Your task to perform on an android device: Open internet settings Image 0: 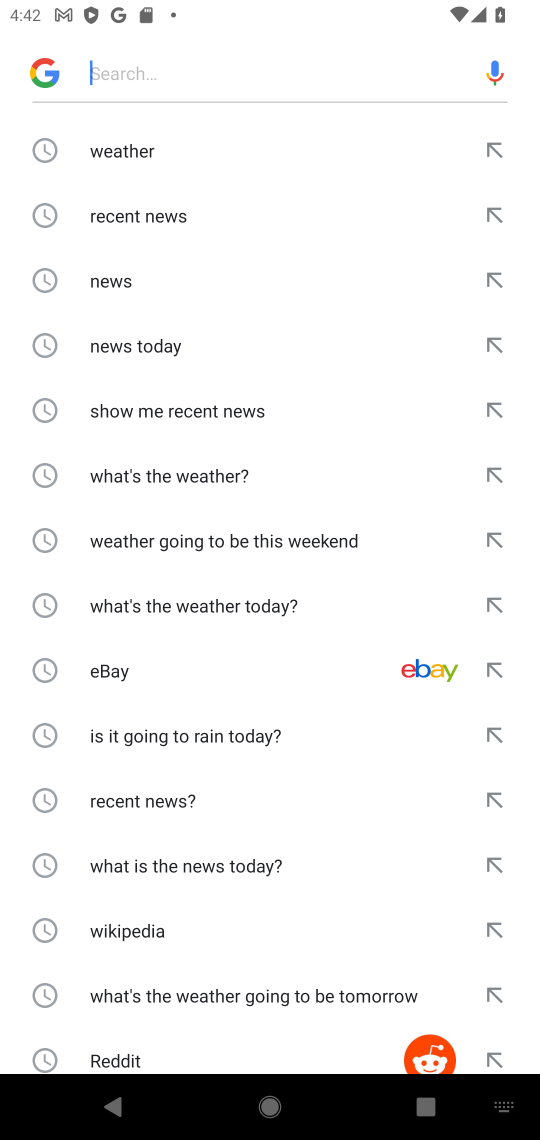
Step 0: press back button
Your task to perform on an android device: Open internet settings Image 1: 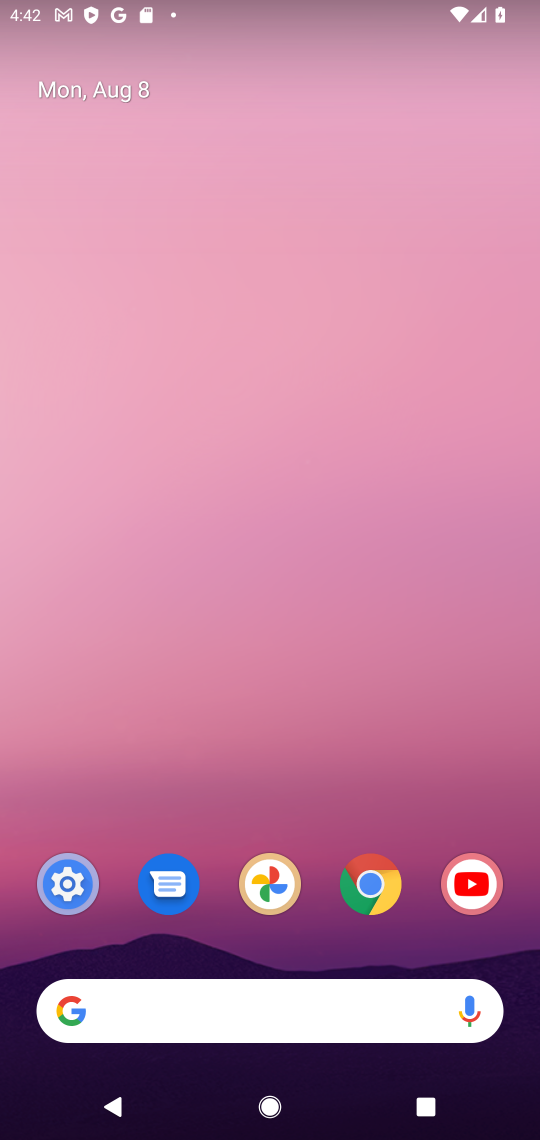
Step 1: click (58, 895)
Your task to perform on an android device: Open internet settings Image 2: 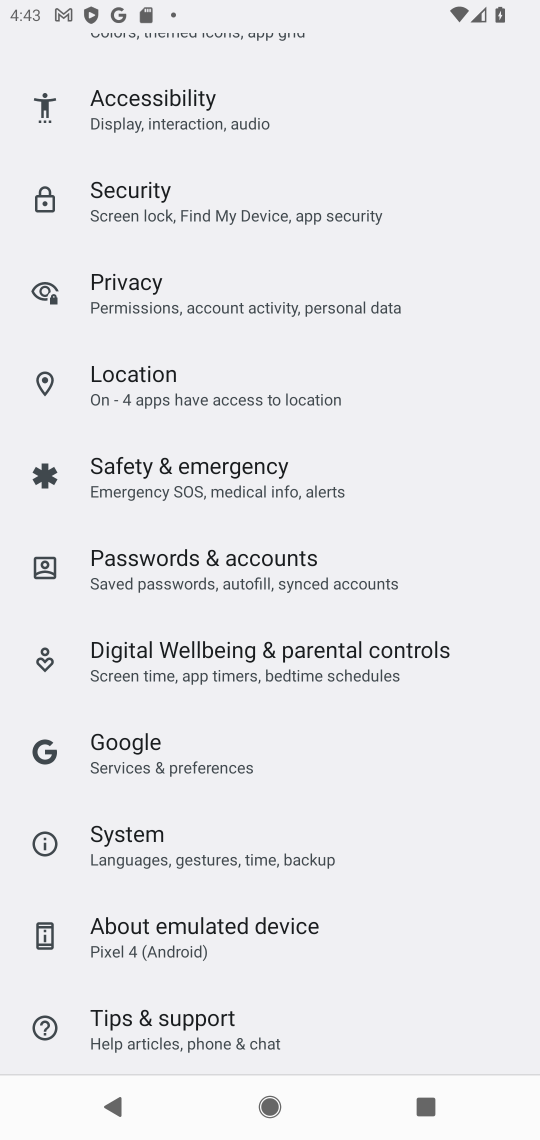
Step 2: click (228, 893)
Your task to perform on an android device: Open internet settings Image 3: 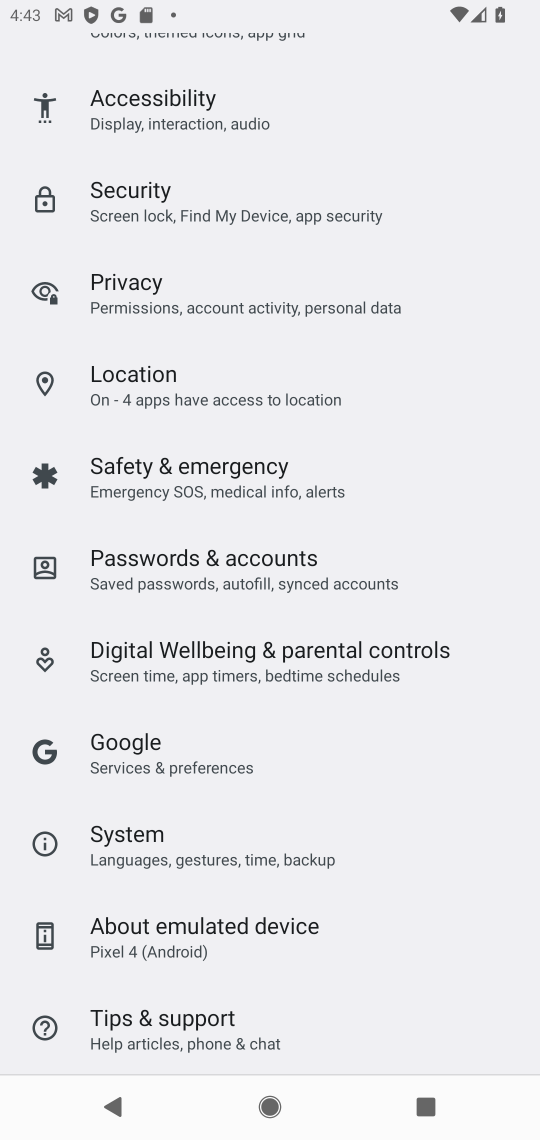
Step 3: drag from (232, 247) to (141, 938)
Your task to perform on an android device: Open internet settings Image 4: 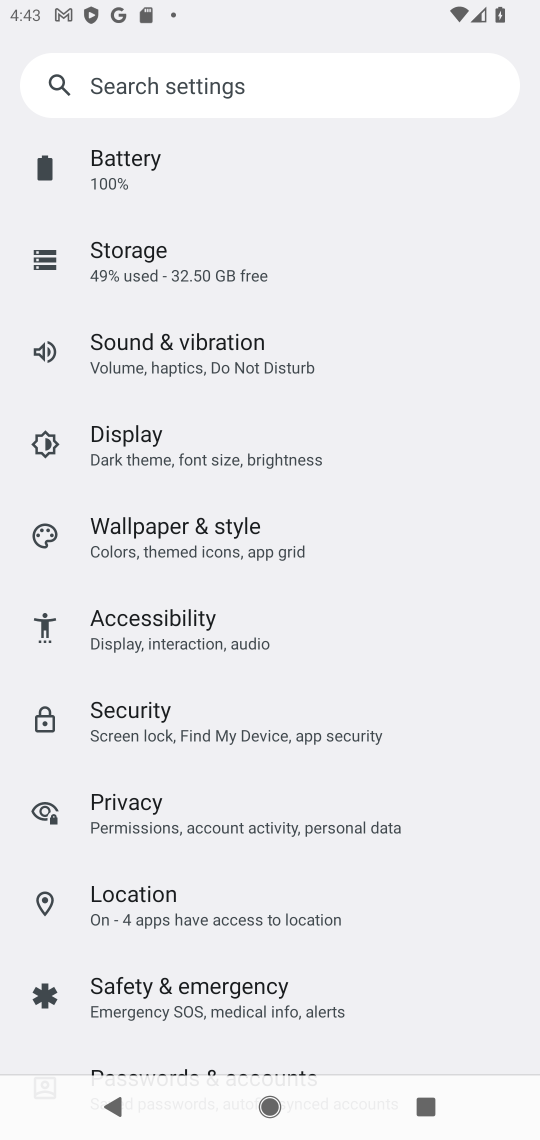
Step 4: drag from (294, 814) to (300, 936)
Your task to perform on an android device: Open internet settings Image 5: 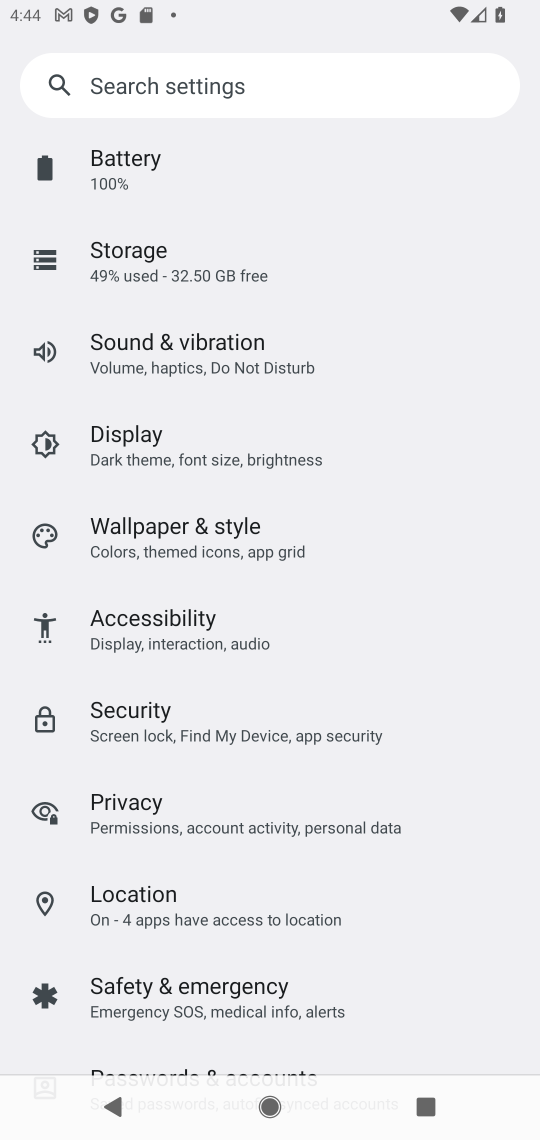
Step 5: drag from (265, 223) to (258, 989)
Your task to perform on an android device: Open internet settings Image 6: 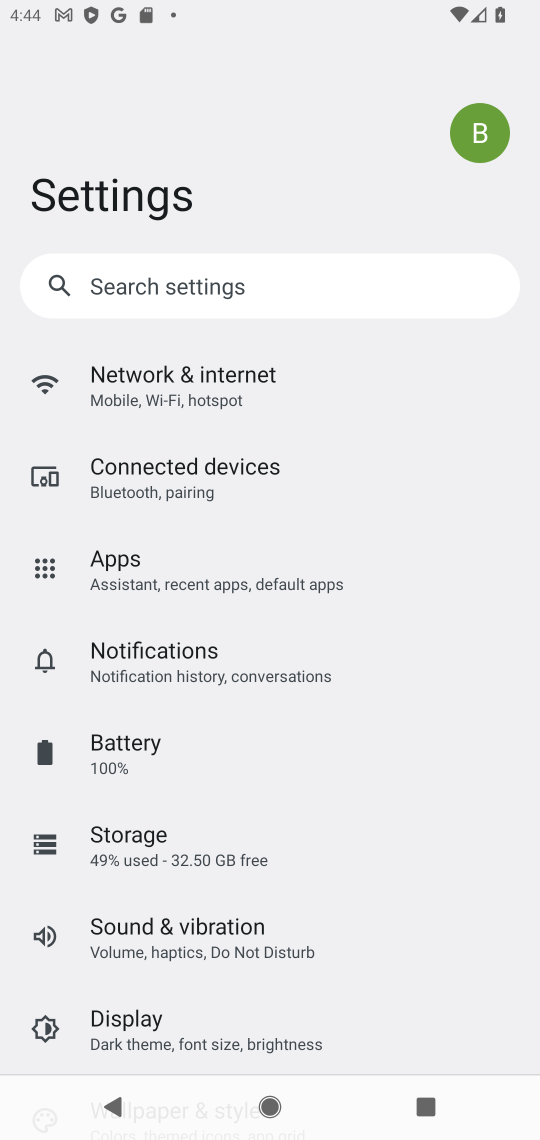
Step 6: click (201, 378)
Your task to perform on an android device: Open internet settings Image 7: 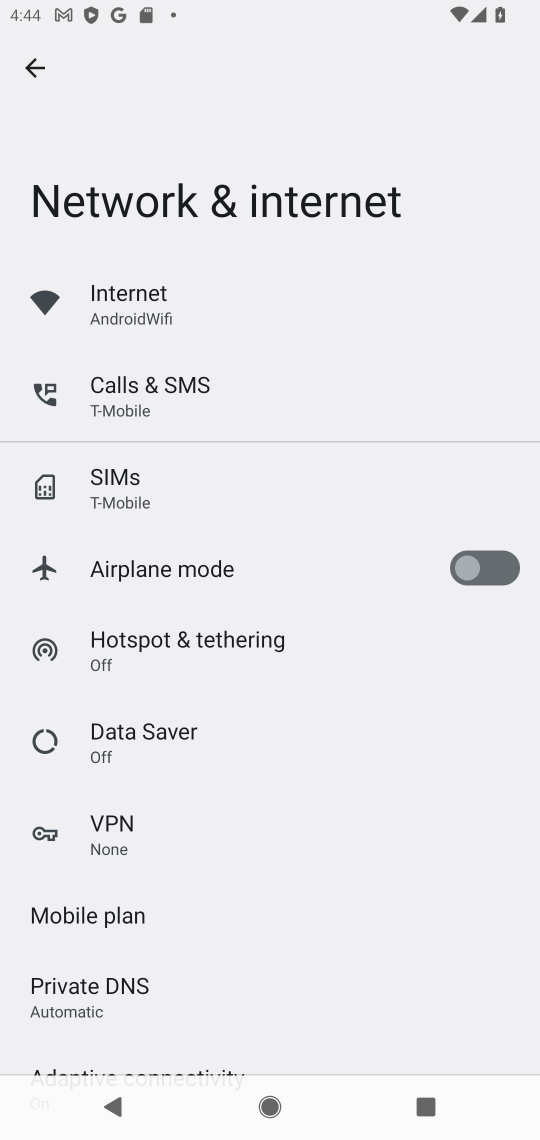
Step 7: task complete